Your task to perform on an android device: Go to privacy settings Image 0: 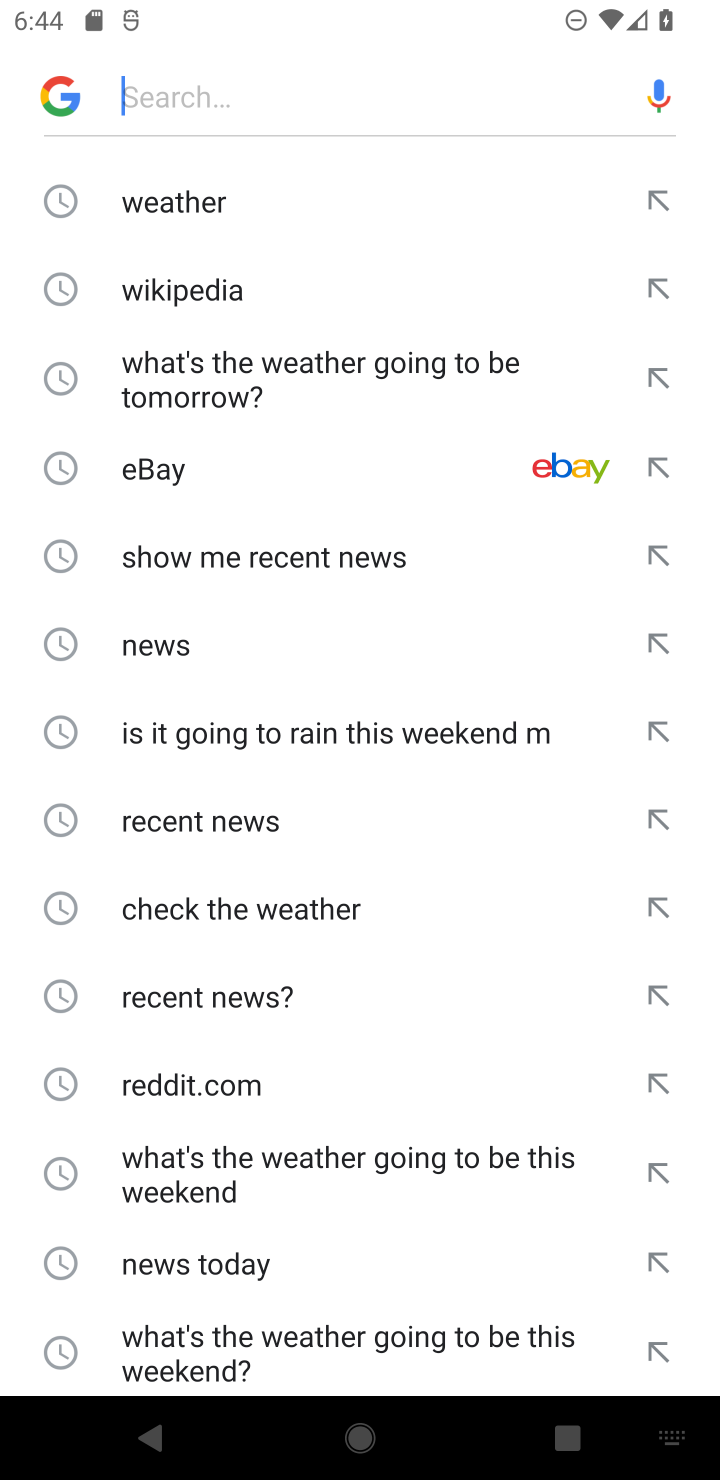
Step 0: press home button
Your task to perform on an android device: Go to privacy settings Image 1: 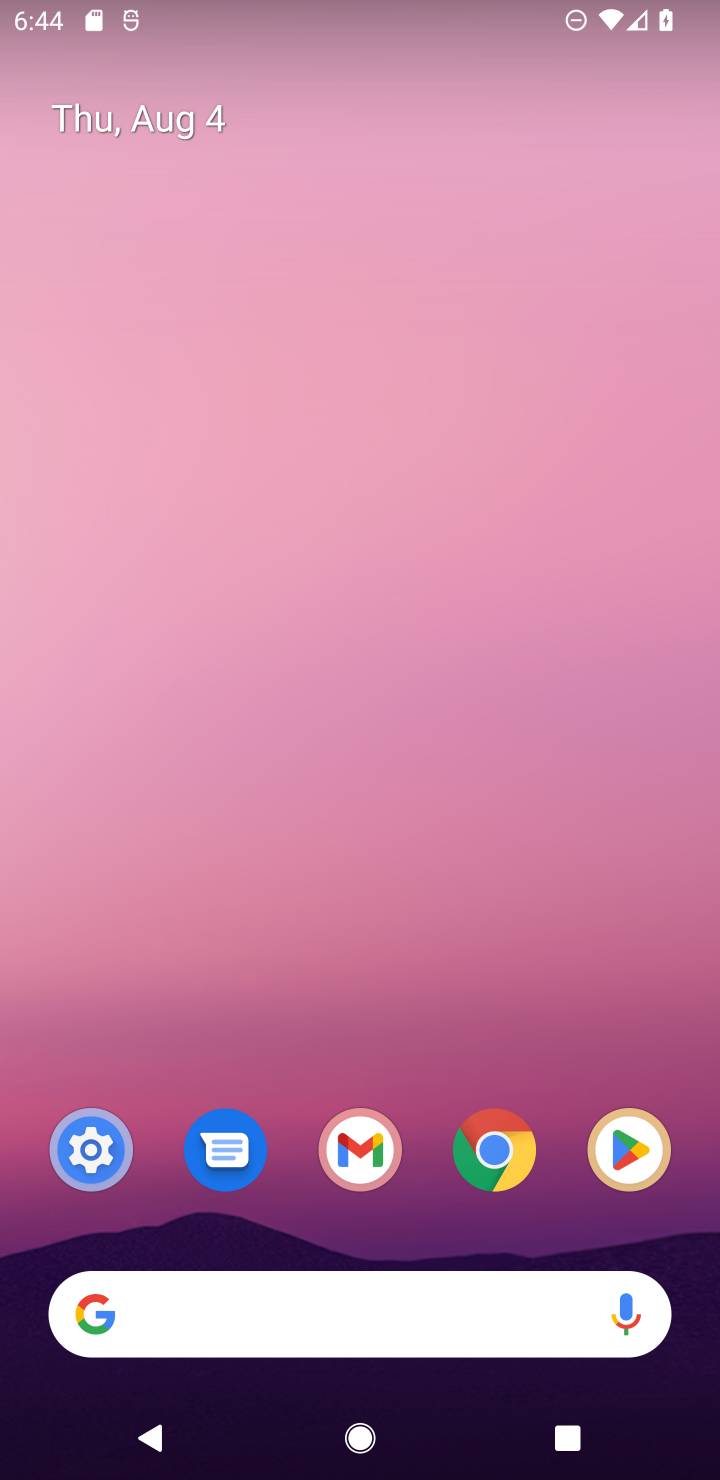
Step 1: drag from (521, 1089) to (609, 92)
Your task to perform on an android device: Go to privacy settings Image 2: 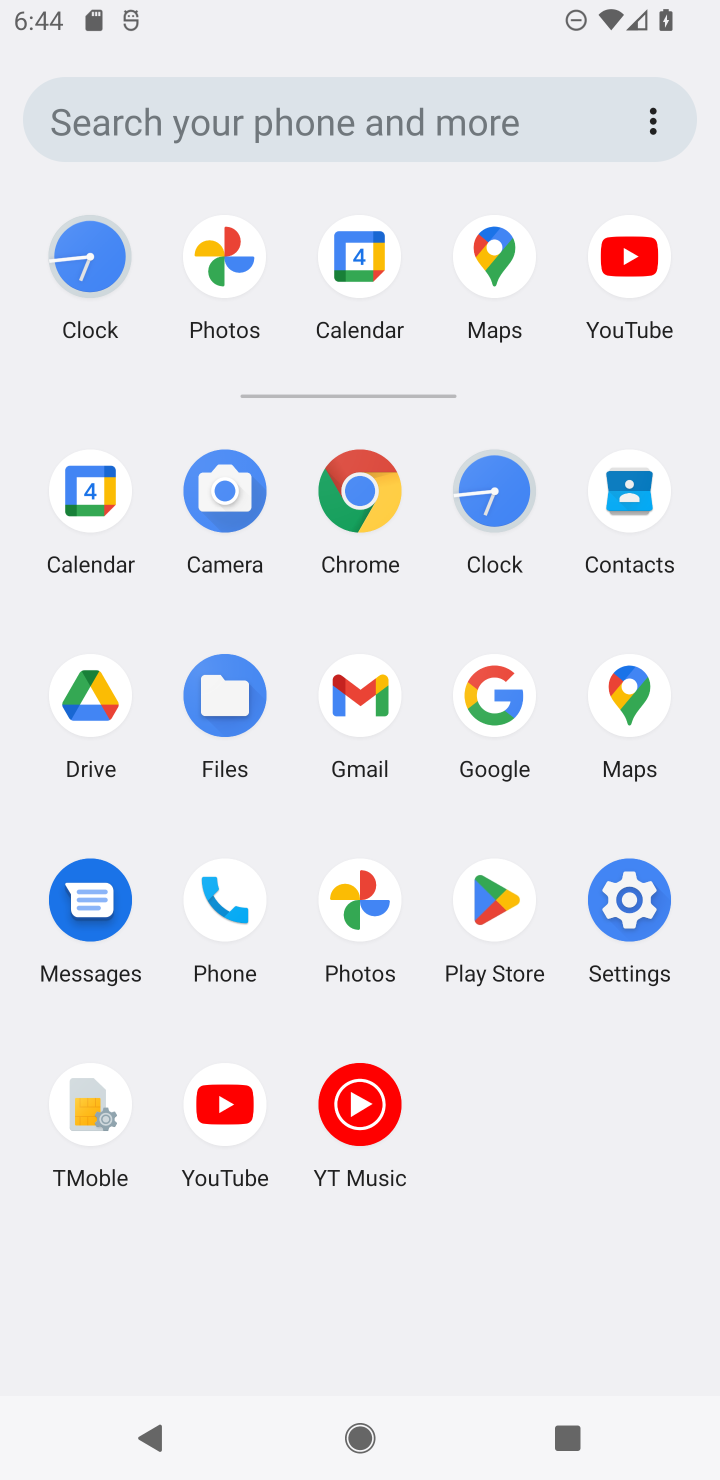
Step 2: click (639, 903)
Your task to perform on an android device: Go to privacy settings Image 3: 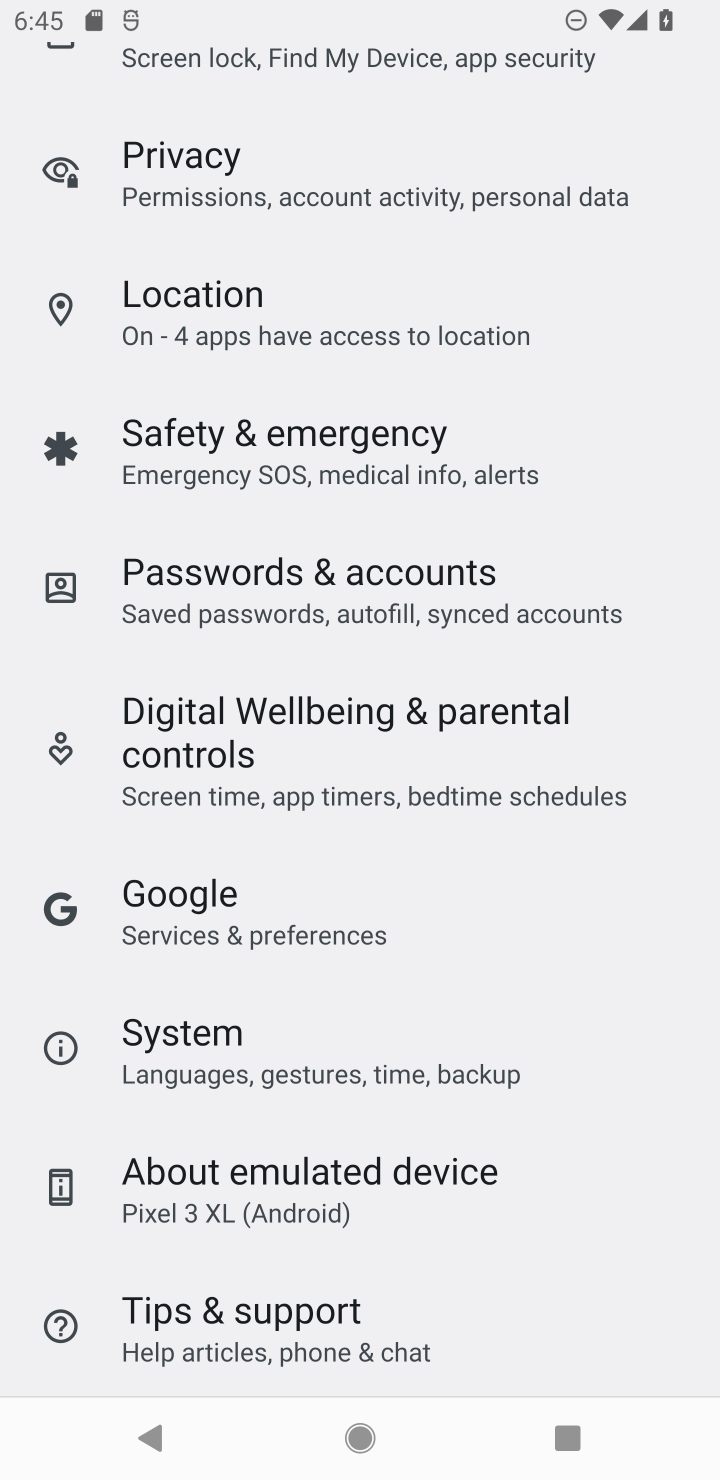
Step 3: click (252, 149)
Your task to perform on an android device: Go to privacy settings Image 4: 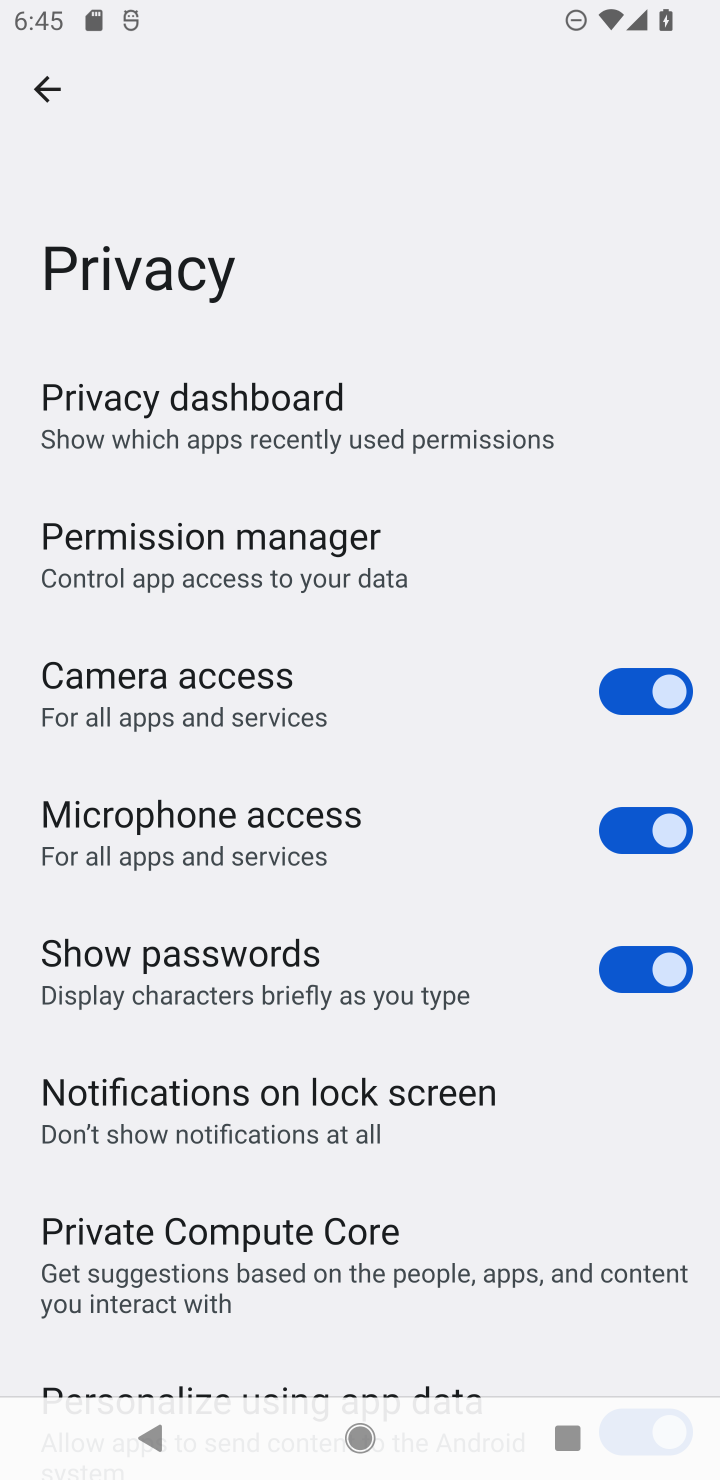
Step 4: task complete